Your task to perform on an android device: allow cookies in the chrome app Image 0: 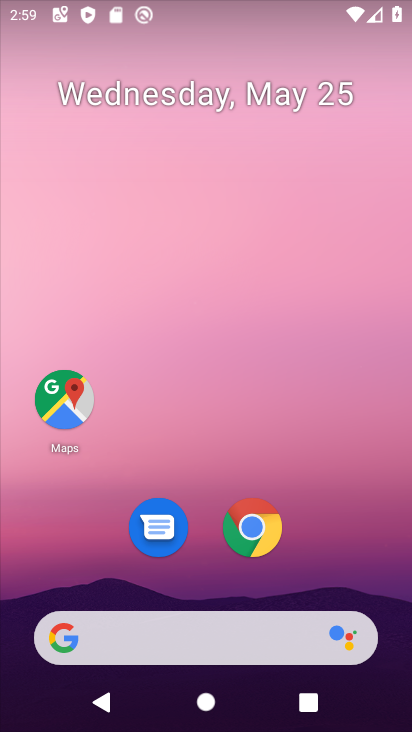
Step 0: click (253, 527)
Your task to perform on an android device: allow cookies in the chrome app Image 1: 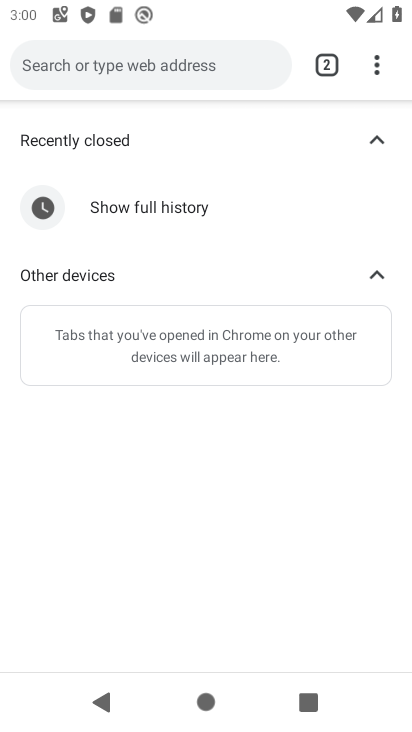
Step 1: drag from (206, 554) to (279, 210)
Your task to perform on an android device: allow cookies in the chrome app Image 2: 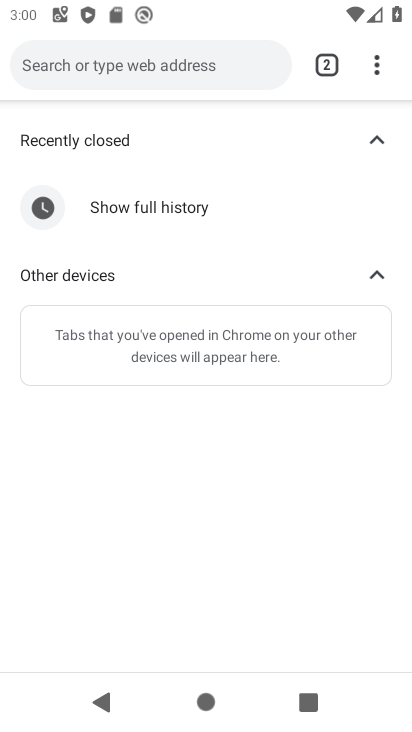
Step 2: click (378, 60)
Your task to perform on an android device: allow cookies in the chrome app Image 3: 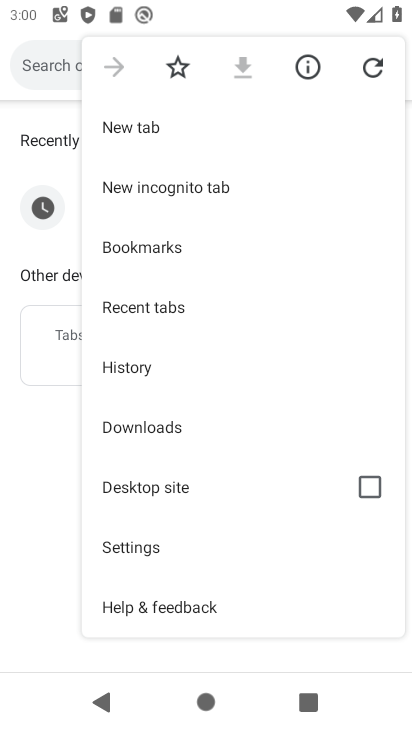
Step 3: drag from (209, 499) to (260, 163)
Your task to perform on an android device: allow cookies in the chrome app Image 4: 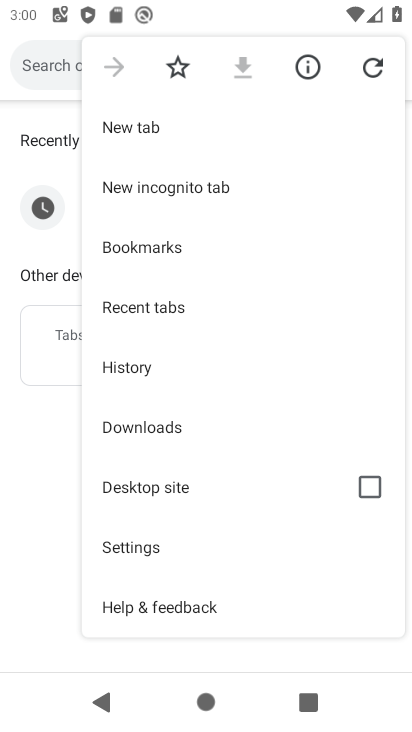
Step 4: click (168, 541)
Your task to perform on an android device: allow cookies in the chrome app Image 5: 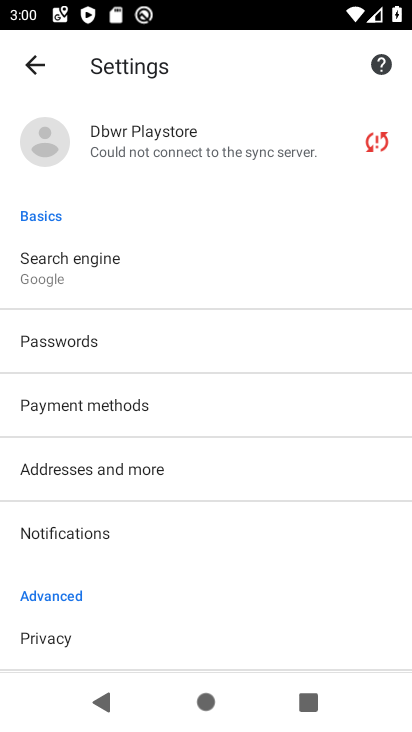
Step 5: drag from (88, 550) to (255, 80)
Your task to perform on an android device: allow cookies in the chrome app Image 6: 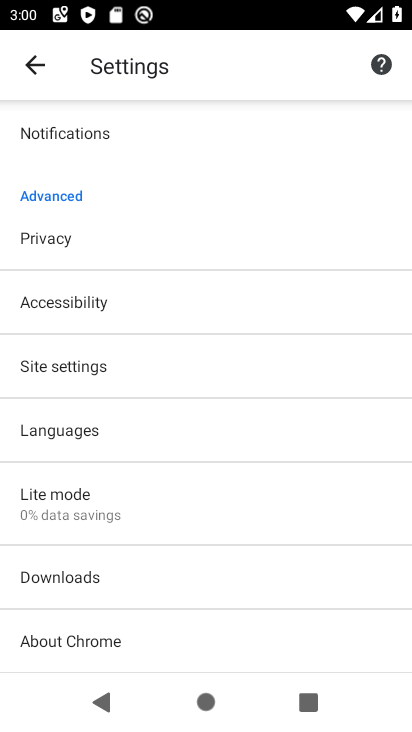
Step 6: click (118, 373)
Your task to perform on an android device: allow cookies in the chrome app Image 7: 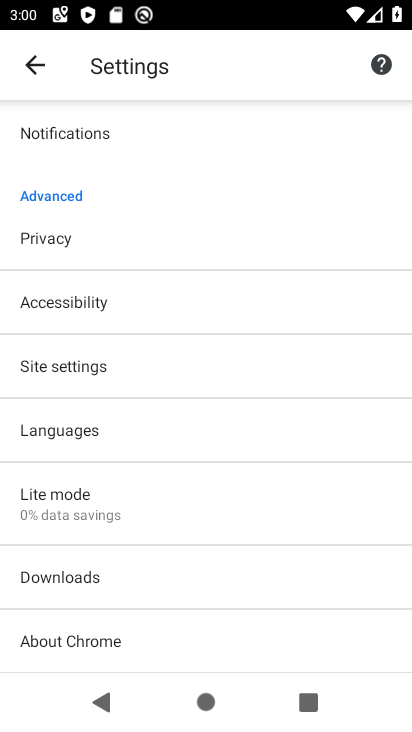
Step 7: click (118, 373)
Your task to perform on an android device: allow cookies in the chrome app Image 8: 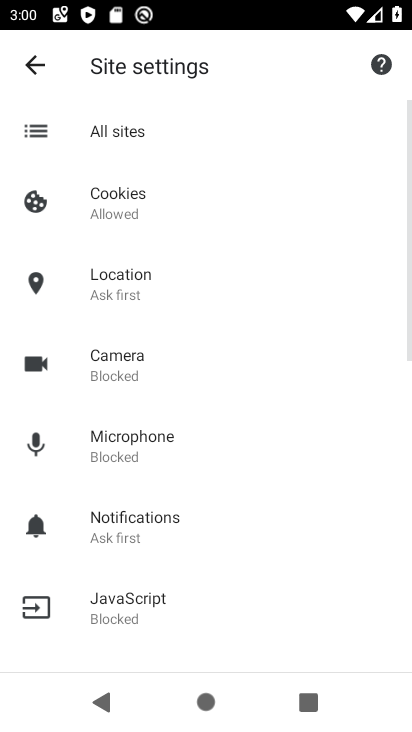
Step 8: click (196, 200)
Your task to perform on an android device: allow cookies in the chrome app Image 9: 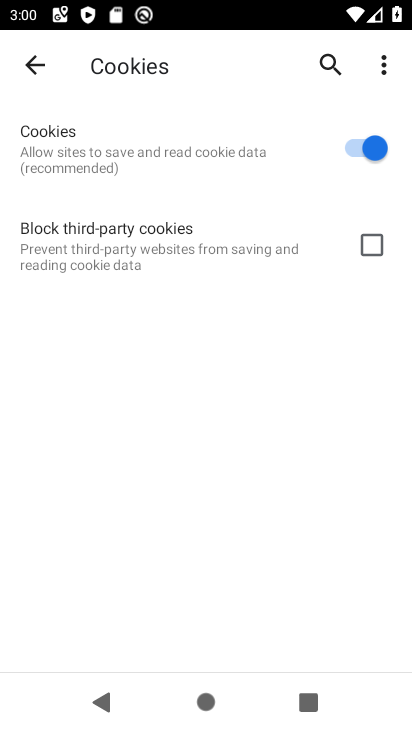
Step 9: task complete